Your task to perform on an android device: all mails in gmail Image 0: 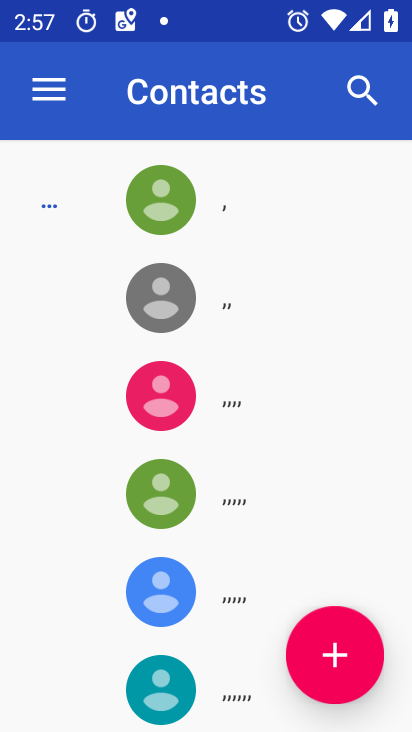
Step 0: press home button
Your task to perform on an android device: all mails in gmail Image 1: 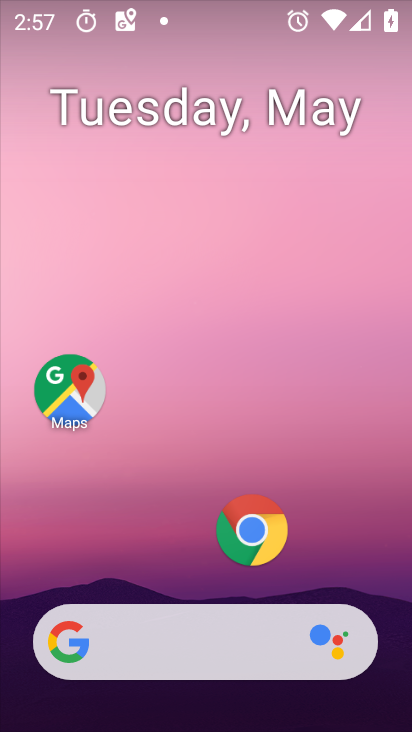
Step 1: drag from (193, 569) to (279, 723)
Your task to perform on an android device: all mails in gmail Image 2: 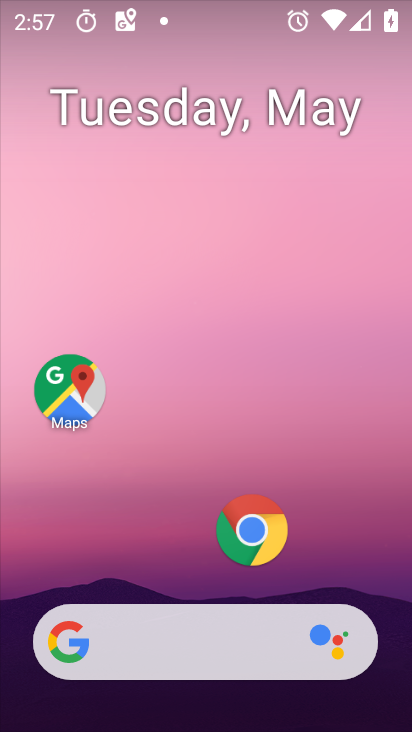
Step 2: drag from (224, 598) to (234, 15)
Your task to perform on an android device: all mails in gmail Image 3: 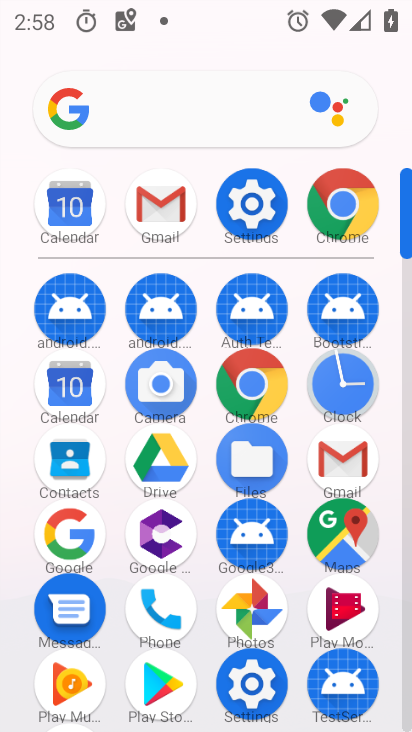
Step 3: click (367, 471)
Your task to perform on an android device: all mails in gmail Image 4: 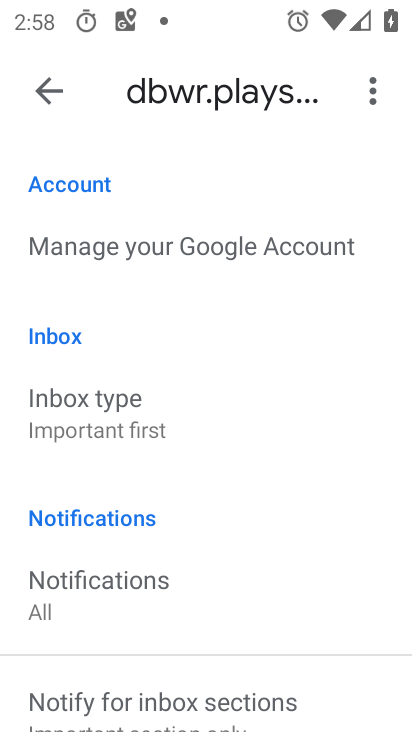
Step 4: click (63, 87)
Your task to perform on an android device: all mails in gmail Image 5: 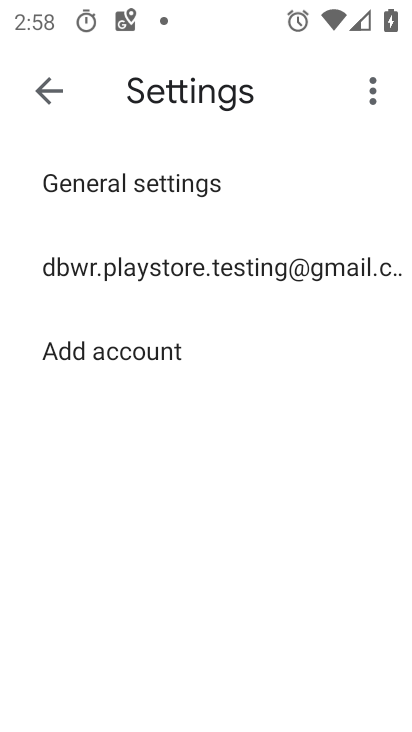
Step 5: click (63, 87)
Your task to perform on an android device: all mails in gmail Image 6: 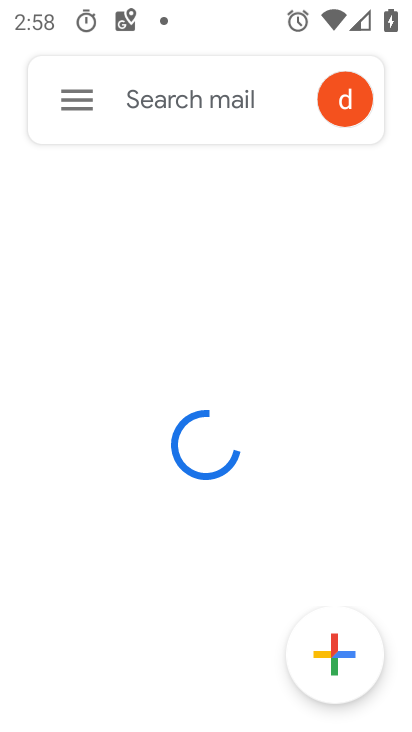
Step 6: click (63, 87)
Your task to perform on an android device: all mails in gmail Image 7: 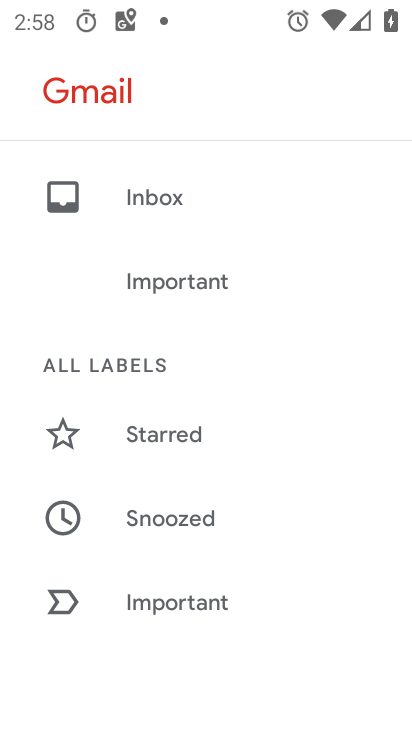
Step 7: drag from (174, 499) to (128, 6)
Your task to perform on an android device: all mails in gmail Image 8: 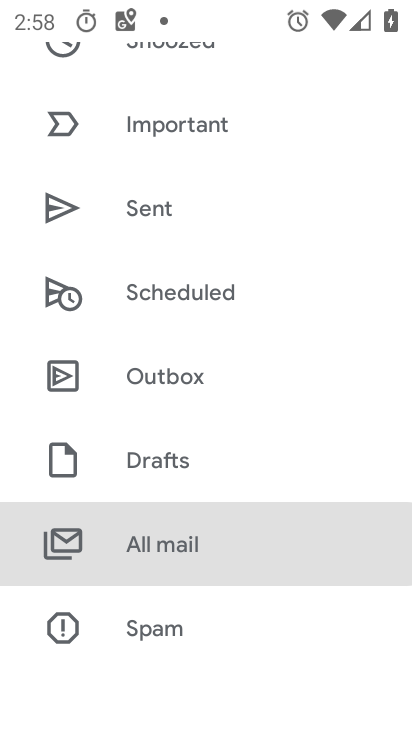
Step 8: click (120, 526)
Your task to perform on an android device: all mails in gmail Image 9: 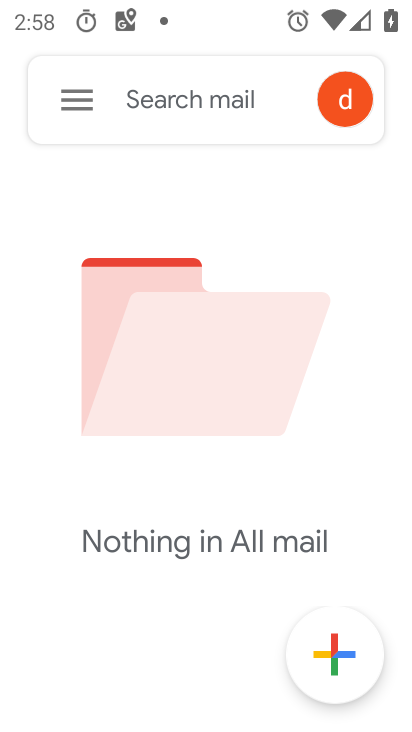
Step 9: task complete